Your task to perform on an android device: Go to Wikipedia Image 0: 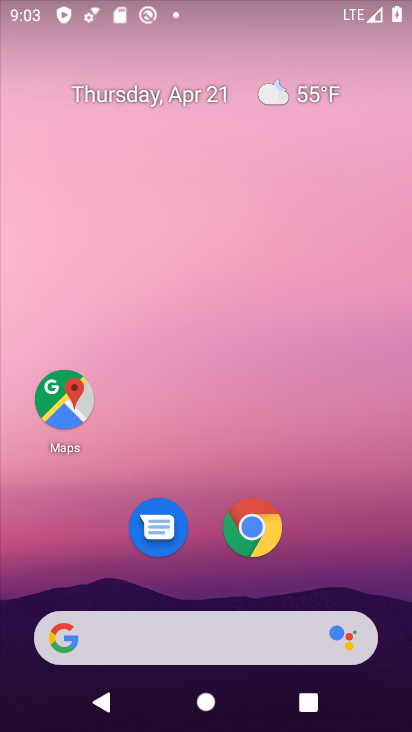
Step 0: click (252, 524)
Your task to perform on an android device: Go to Wikipedia Image 1: 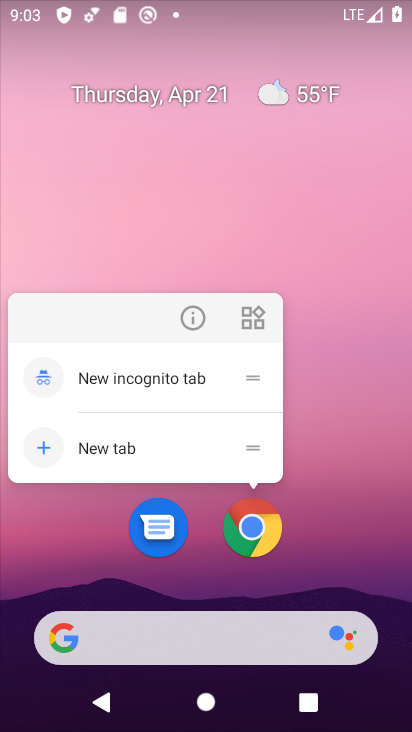
Step 1: click (305, 522)
Your task to perform on an android device: Go to Wikipedia Image 2: 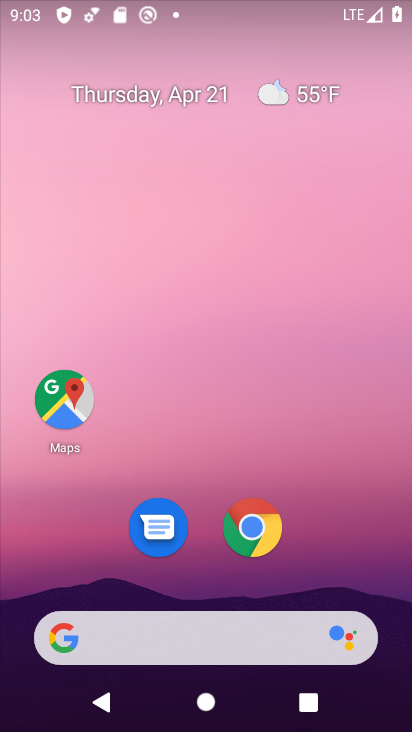
Step 2: click (249, 528)
Your task to perform on an android device: Go to Wikipedia Image 3: 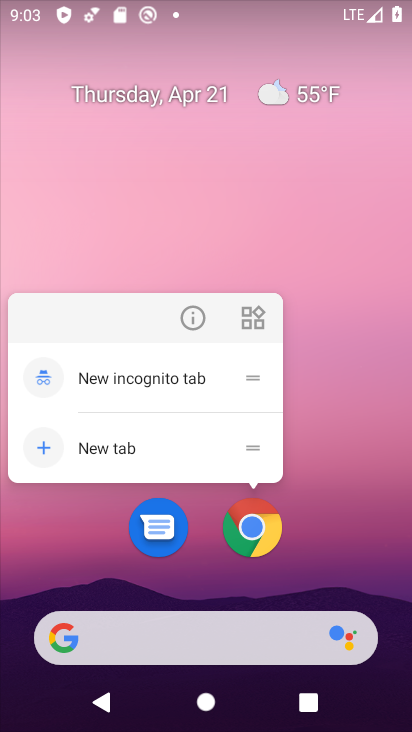
Step 3: click (302, 538)
Your task to perform on an android device: Go to Wikipedia Image 4: 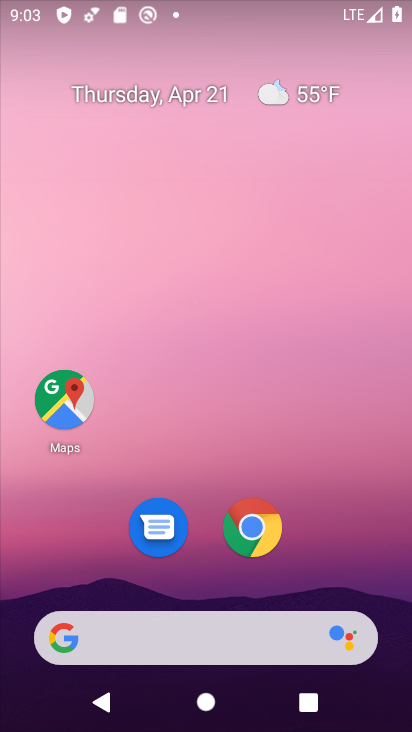
Step 4: drag from (302, 572) to (351, 134)
Your task to perform on an android device: Go to Wikipedia Image 5: 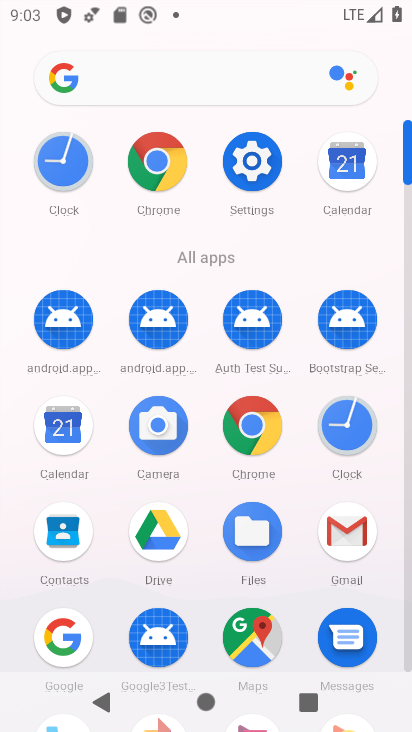
Step 5: click (252, 425)
Your task to perform on an android device: Go to Wikipedia Image 6: 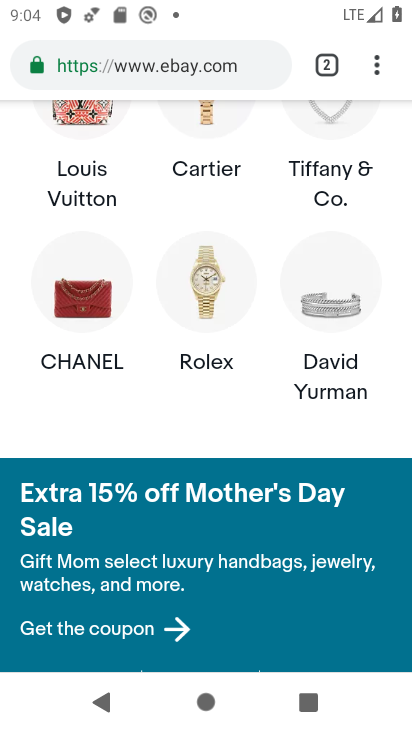
Step 6: click (325, 66)
Your task to perform on an android device: Go to Wikipedia Image 7: 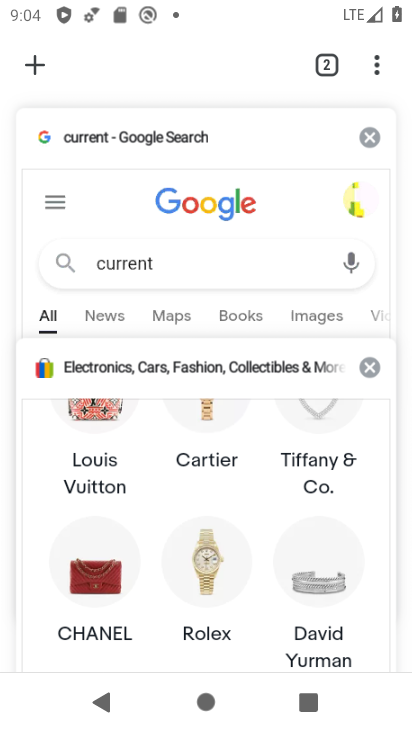
Step 7: click (369, 137)
Your task to perform on an android device: Go to Wikipedia Image 8: 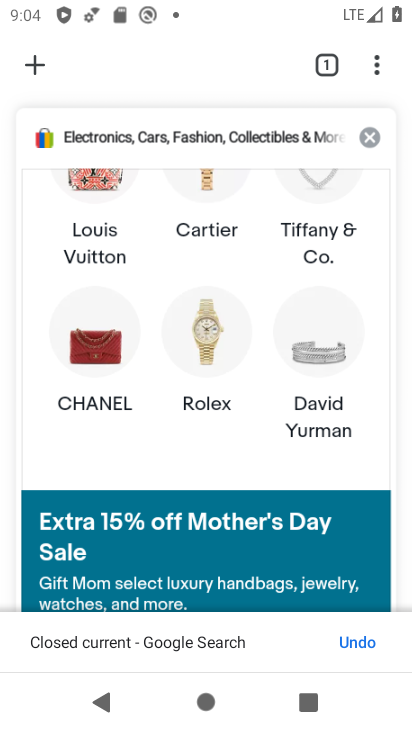
Step 8: click (371, 137)
Your task to perform on an android device: Go to Wikipedia Image 9: 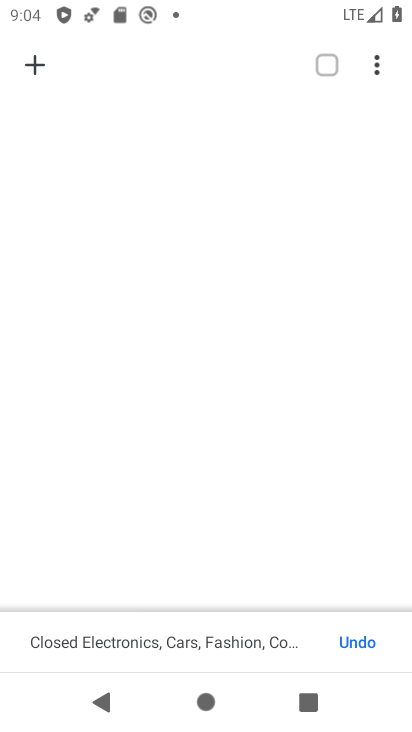
Step 9: click (51, 73)
Your task to perform on an android device: Go to Wikipedia Image 10: 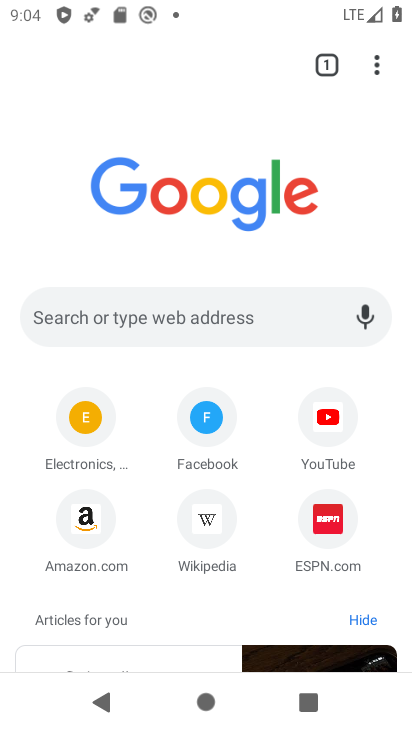
Step 10: click (204, 517)
Your task to perform on an android device: Go to Wikipedia Image 11: 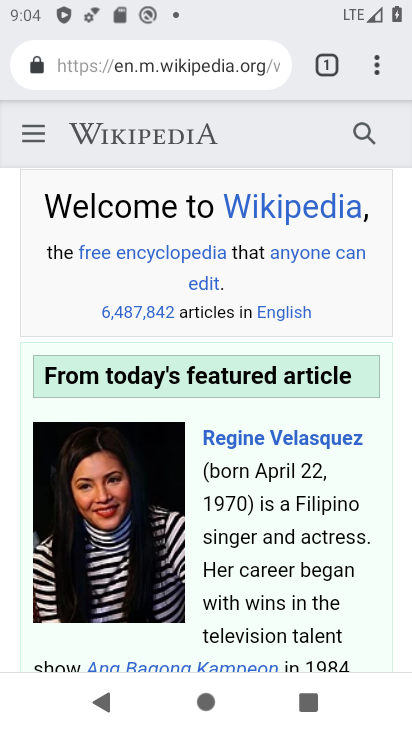
Step 11: task complete